Your task to perform on an android device: change notification settings in the gmail app Image 0: 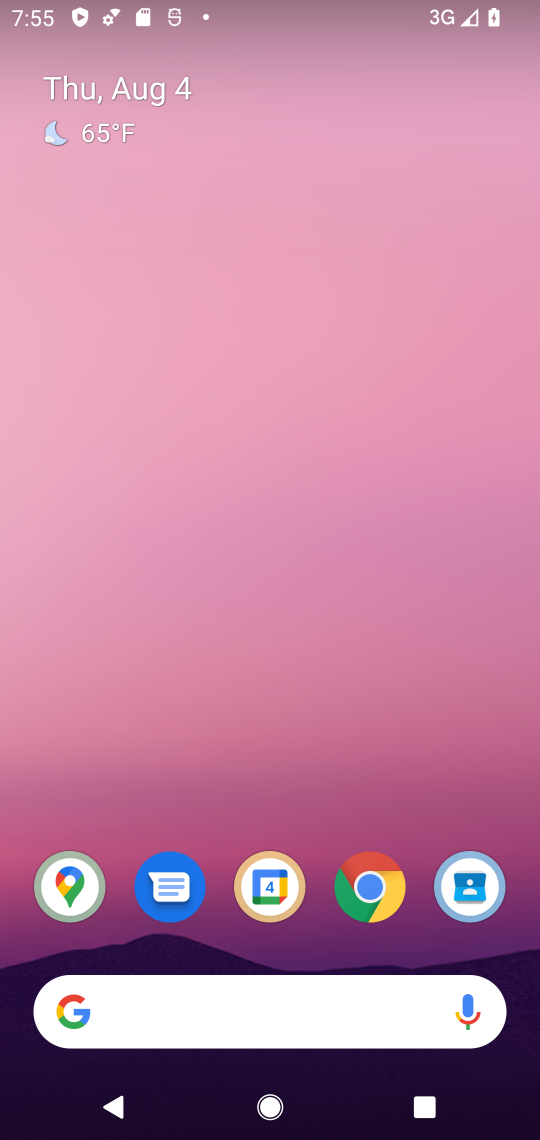
Step 0: drag from (258, 931) to (216, 104)
Your task to perform on an android device: change notification settings in the gmail app Image 1: 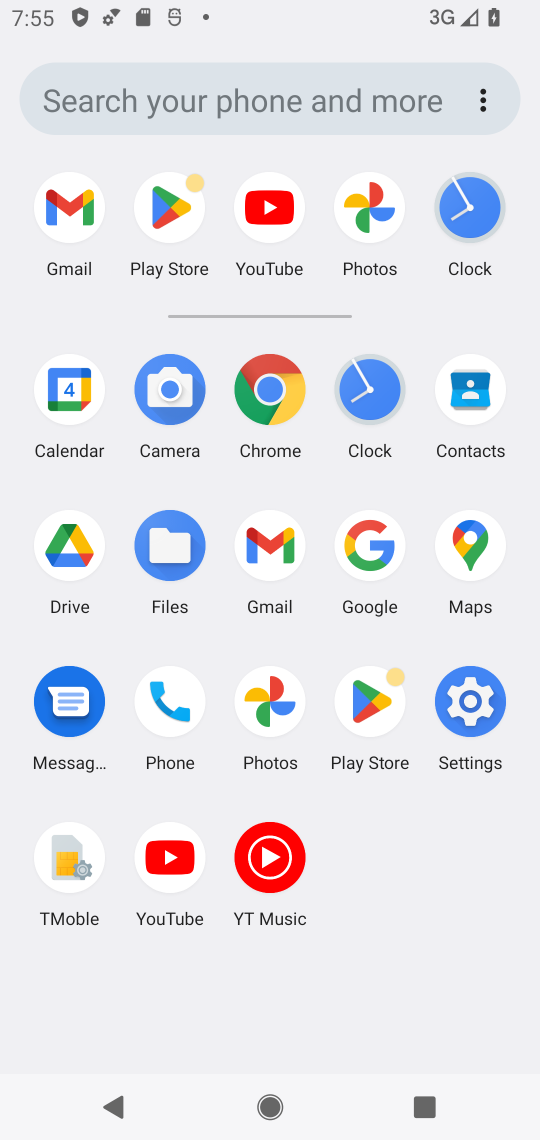
Step 1: click (290, 551)
Your task to perform on an android device: change notification settings in the gmail app Image 2: 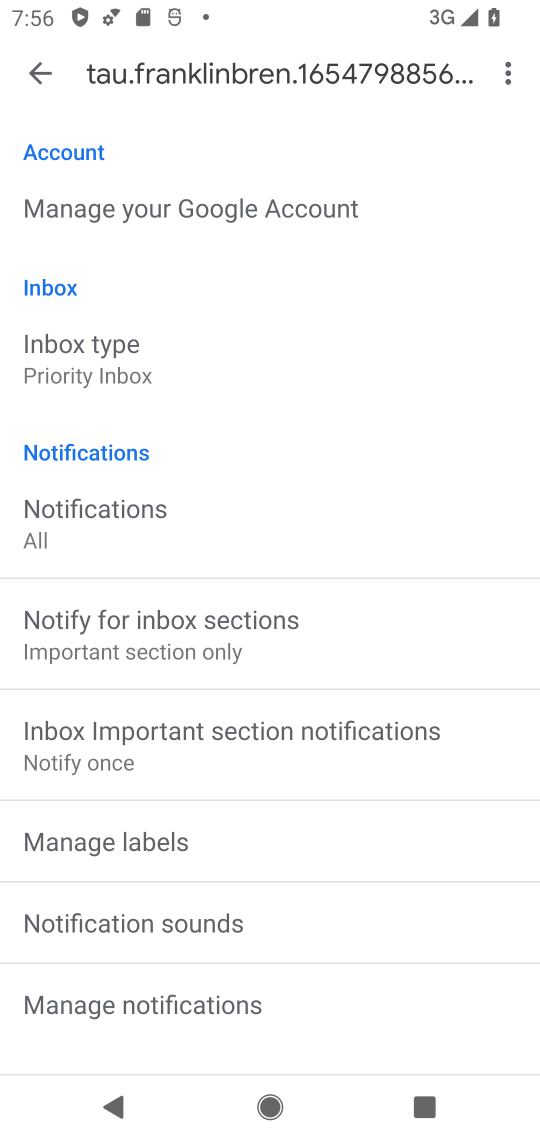
Step 2: click (107, 519)
Your task to perform on an android device: change notification settings in the gmail app Image 3: 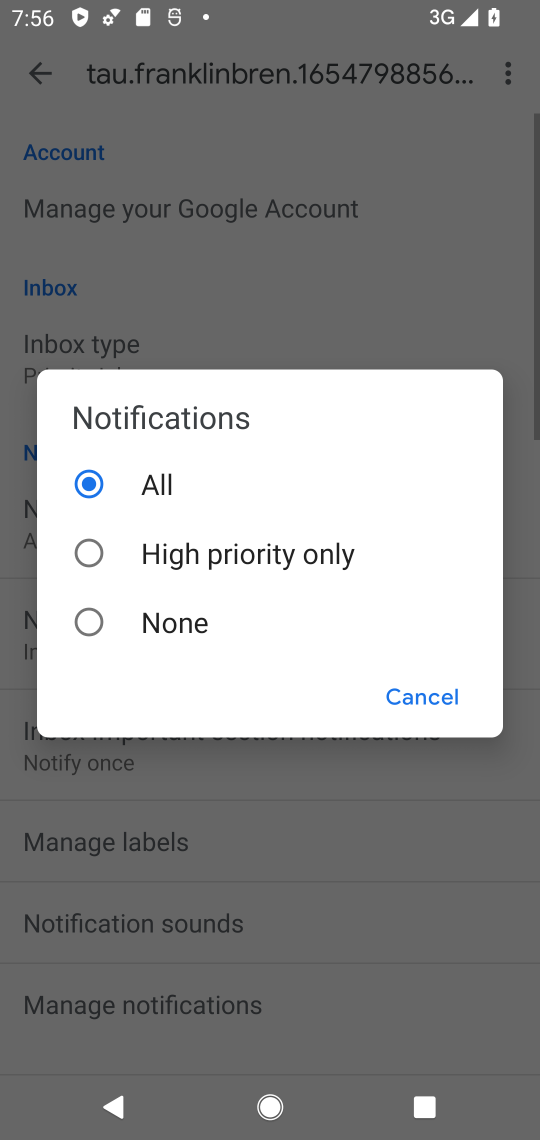
Step 3: click (176, 563)
Your task to perform on an android device: change notification settings in the gmail app Image 4: 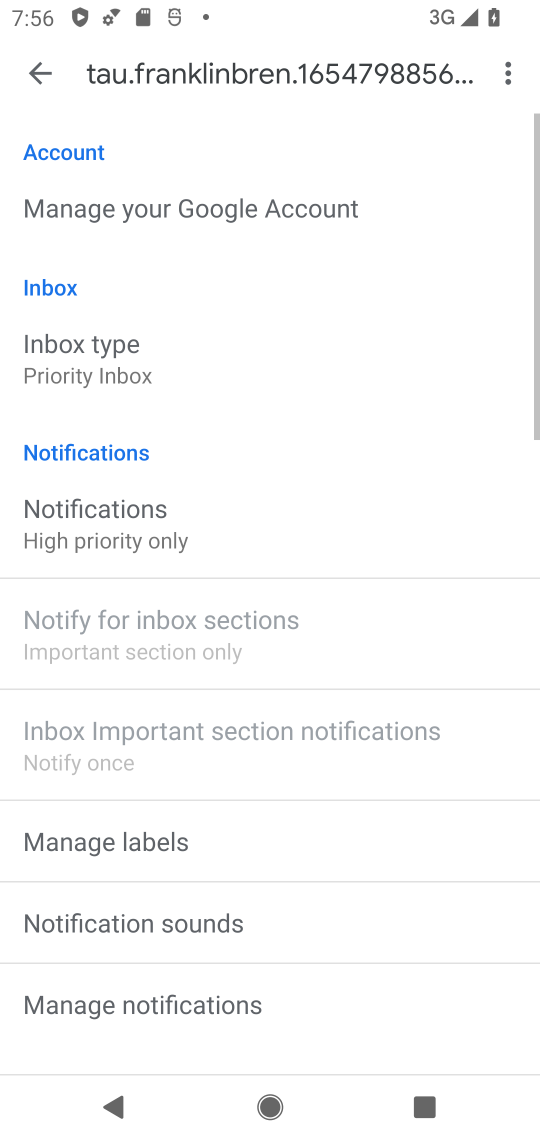
Step 4: task complete